Your task to perform on an android device: turn off priority inbox in the gmail app Image 0: 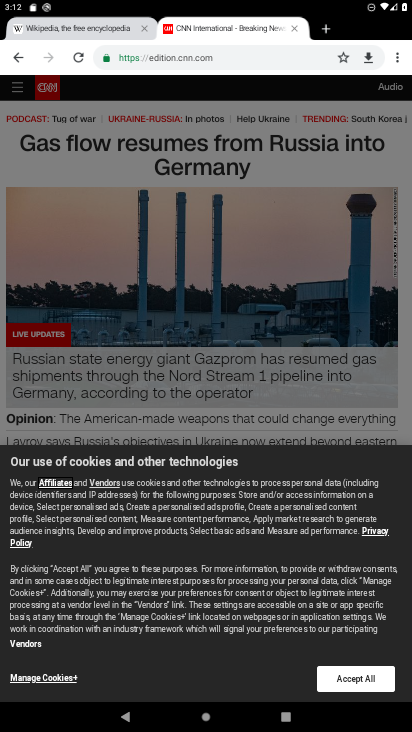
Step 0: press home button
Your task to perform on an android device: turn off priority inbox in the gmail app Image 1: 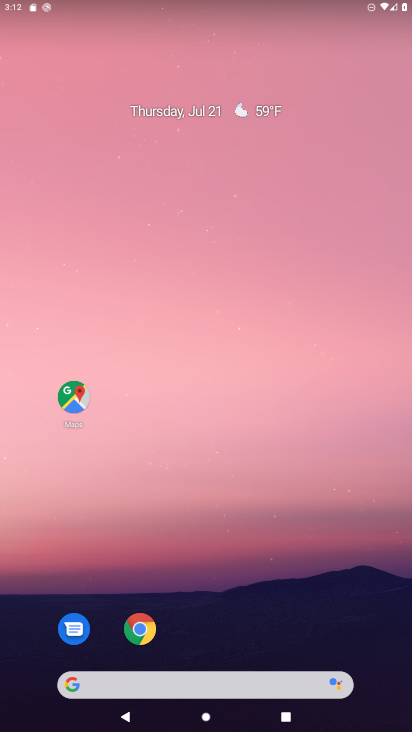
Step 1: drag from (235, 727) to (235, 216)
Your task to perform on an android device: turn off priority inbox in the gmail app Image 2: 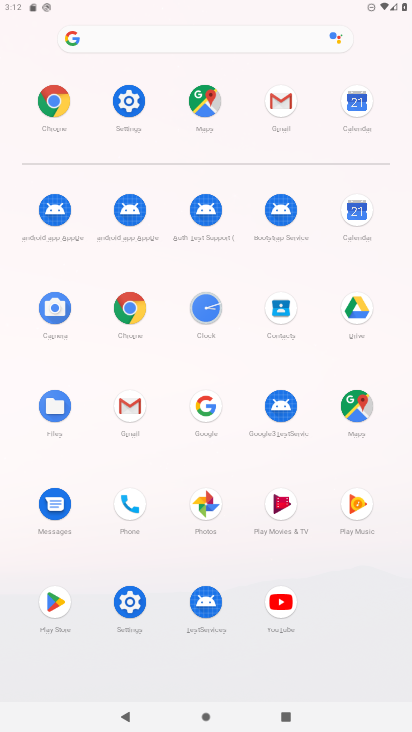
Step 2: click (126, 403)
Your task to perform on an android device: turn off priority inbox in the gmail app Image 3: 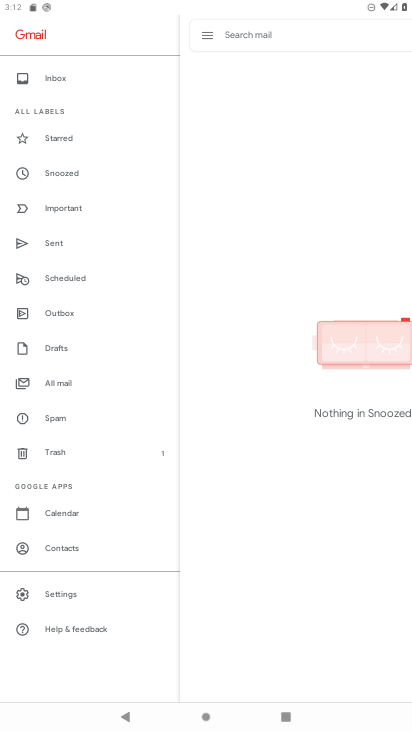
Step 3: click (57, 590)
Your task to perform on an android device: turn off priority inbox in the gmail app Image 4: 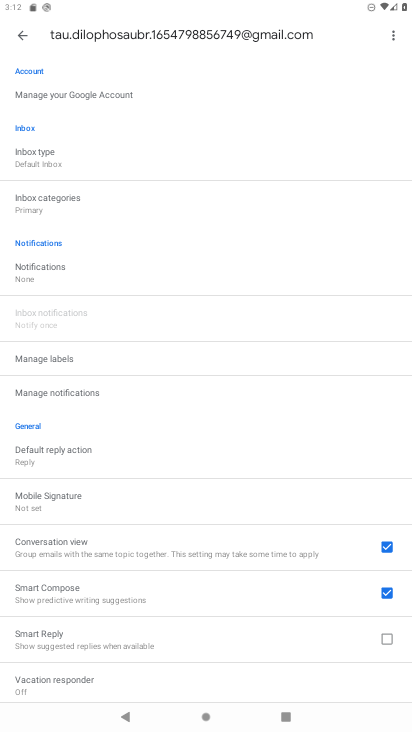
Step 4: click (32, 155)
Your task to perform on an android device: turn off priority inbox in the gmail app Image 5: 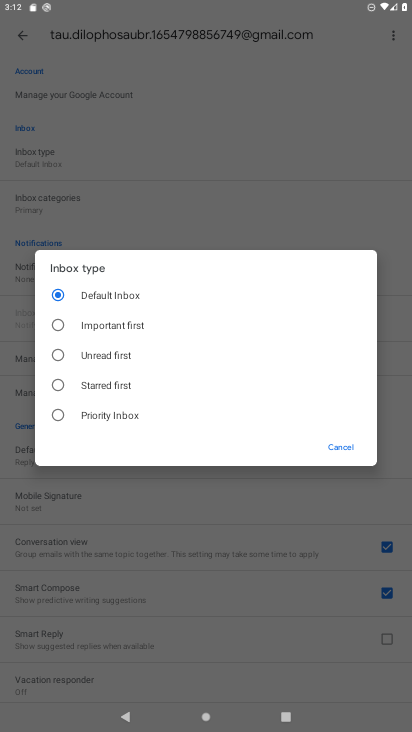
Step 5: click (58, 417)
Your task to perform on an android device: turn off priority inbox in the gmail app Image 6: 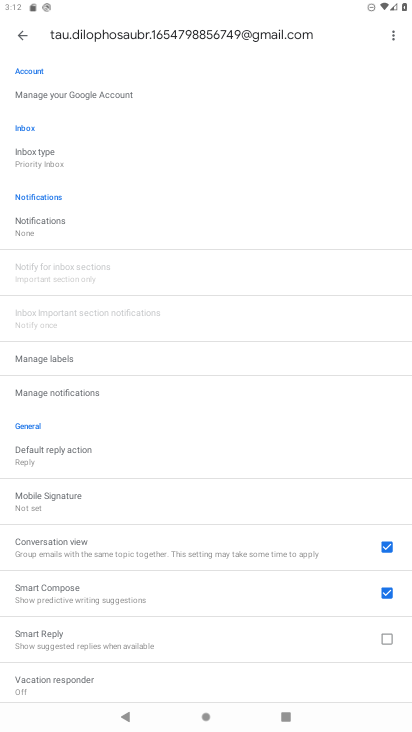
Step 6: task complete